Your task to perform on an android device: remove spam from my inbox in the gmail app Image 0: 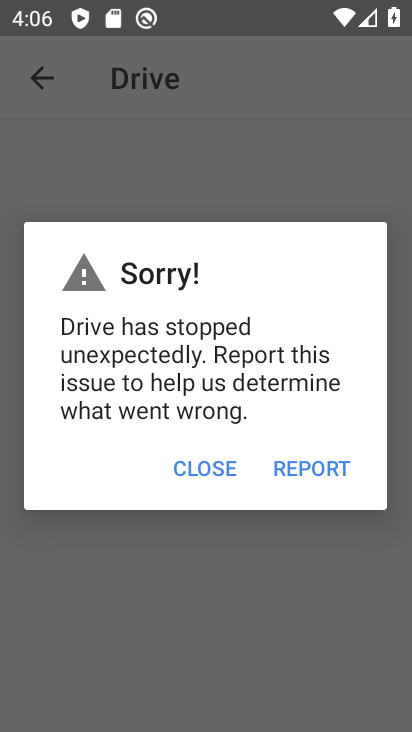
Step 0: press home button
Your task to perform on an android device: remove spam from my inbox in the gmail app Image 1: 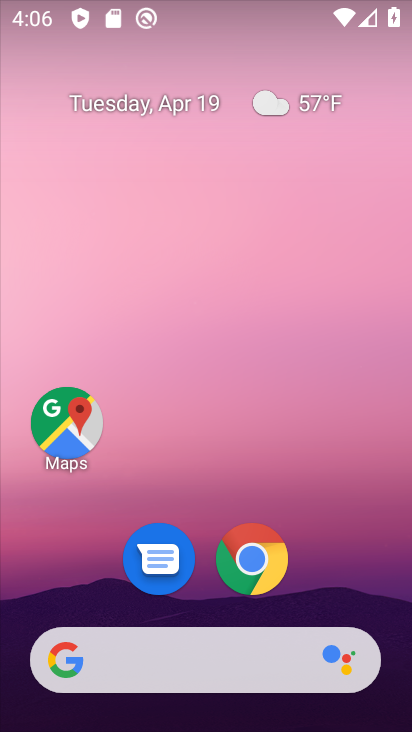
Step 1: drag from (373, 606) to (352, 261)
Your task to perform on an android device: remove spam from my inbox in the gmail app Image 2: 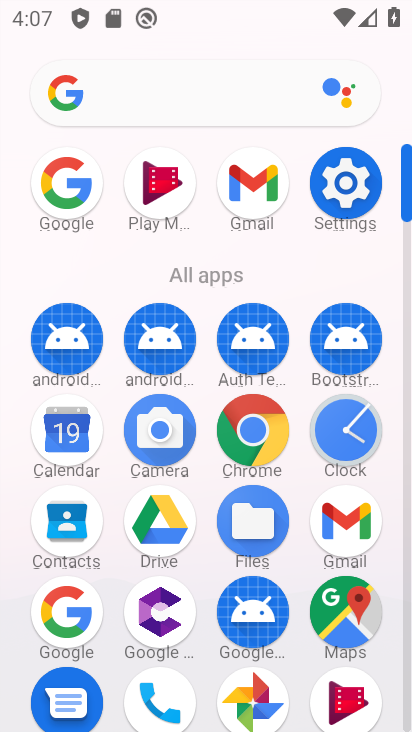
Step 2: click (325, 519)
Your task to perform on an android device: remove spam from my inbox in the gmail app Image 3: 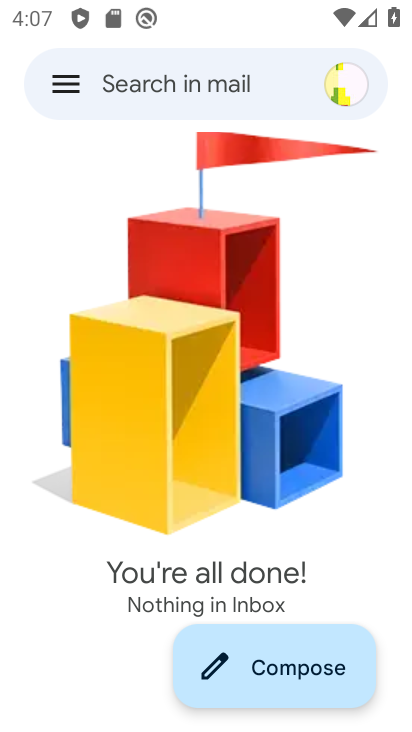
Step 3: click (68, 78)
Your task to perform on an android device: remove spam from my inbox in the gmail app Image 4: 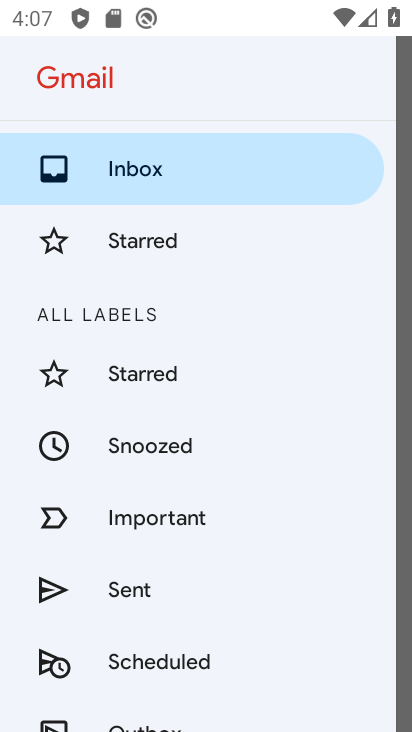
Step 4: drag from (311, 559) to (321, 158)
Your task to perform on an android device: remove spam from my inbox in the gmail app Image 5: 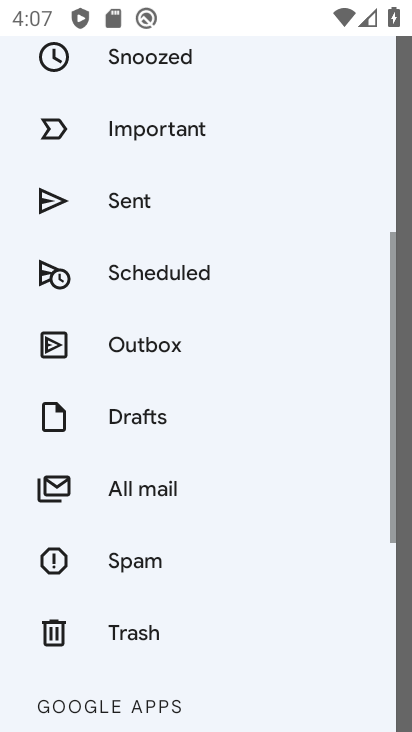
Step 5: drag from (278, 498) to (278, 378)
Your task to perform on an android device: remove spam from my inbox in the gmail app Image 6: 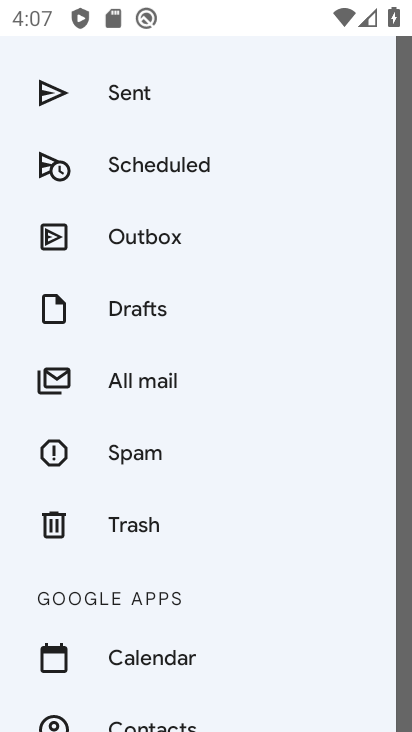
Step 6: click (120, 451)
Your task to perform on an android device: remove spam from my inbox in the gmail app Image 7: 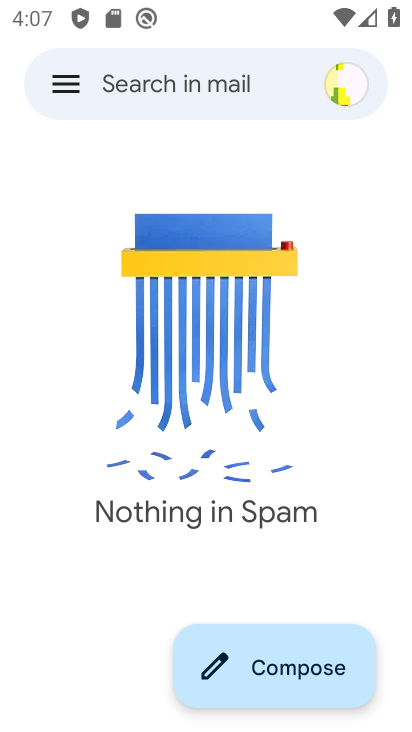
Step 7: task complete